Your task to perform on an android device: turn off priority inbox in the gmail app Image 0: 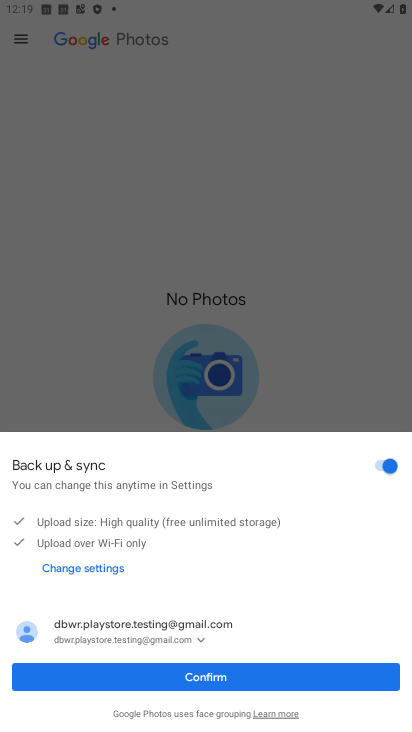
Step 0: press home button
Your task to perform on an android device: turn off priority inbox in the gmail app Image 1: 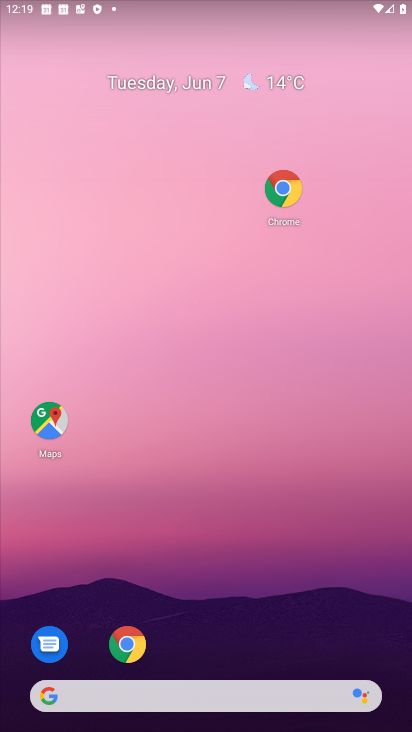
Step 1: drag from (294, 514) to (268, 76)
Your task to perform on an android device: turn off priority inbox in the gmail app Image 2: 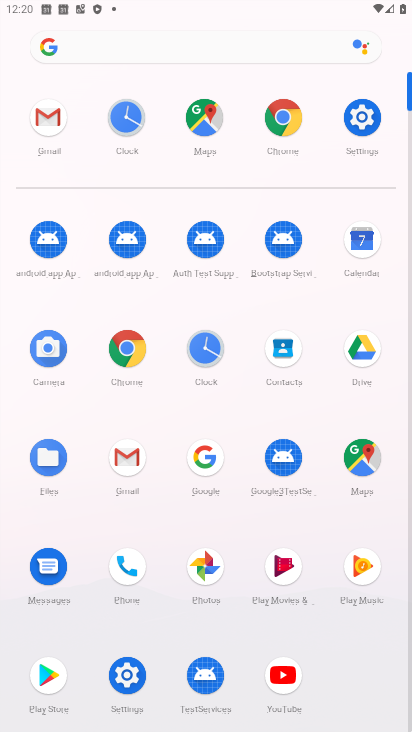
Step 2: click (63, 121)
Your task to perform on an android device: turn off priority inbox in the gmail app Image 3: 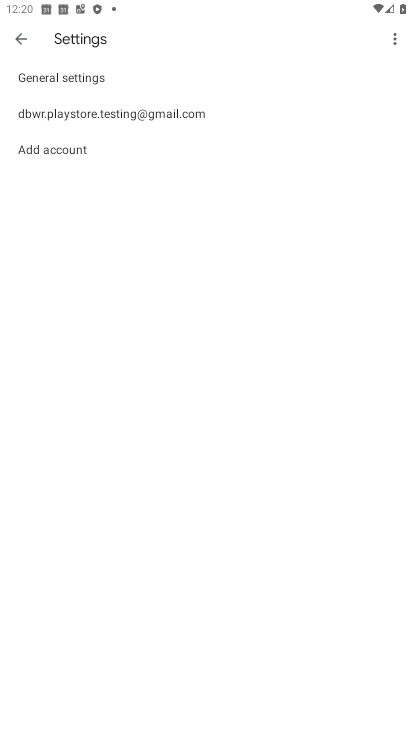
Step 3: click (12, 34)
Your task to perform on an android device: turn off priority inbox in the gmail app Image 4: 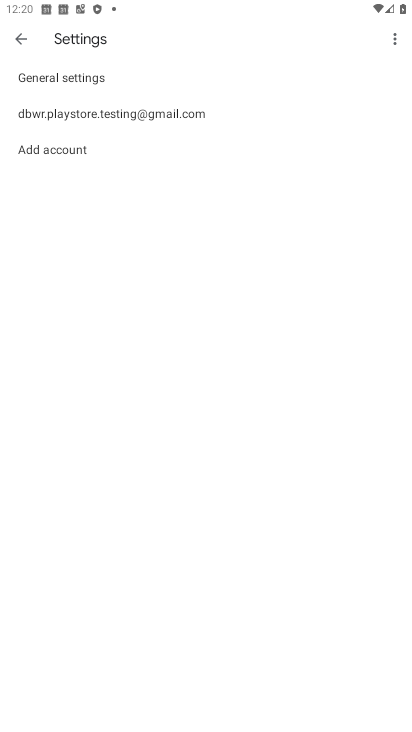
Step 4: click (14, 36)
Your task to perform on an android device: turn off priority inbox in the gmail app Image 5: 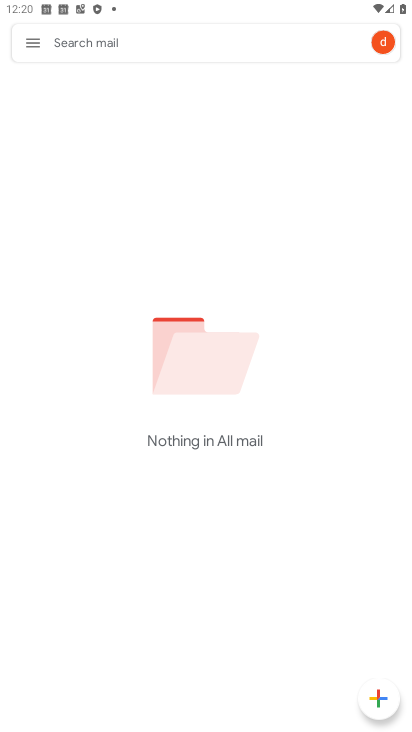
Step 5: click (21, 39)
Your task to perform on an android device: turn off priority inbox in the gmail app Image 6: 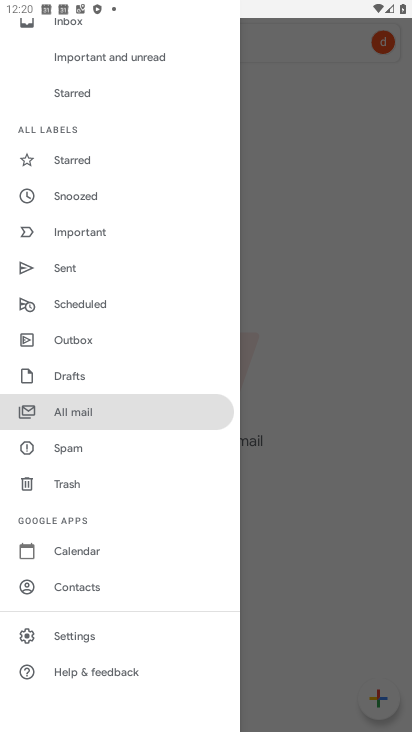
Step 6: click (90, 637)
Your task to perform on an android device: turn off priority inbox in the gmail app Image 7: 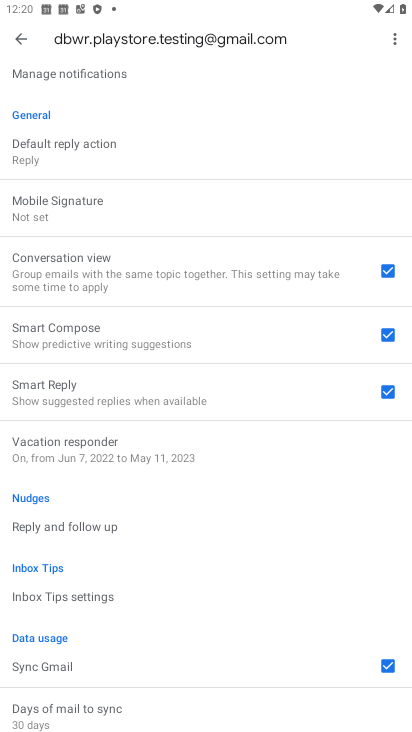
Step 7: drag from (125, 197) to (200, 686)
Your task to perform on an android device: turn off priority inbox in the gmail app Image 8: 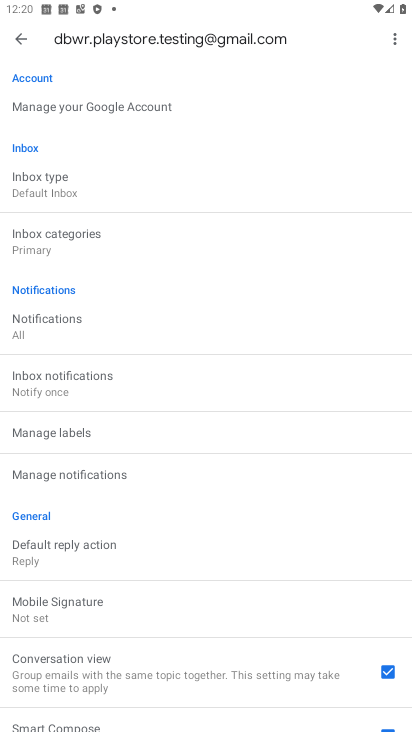
Step 8: drag from (133, 187) to (192, 524)
Your task to perform on an android device: turn off priority inbox in the gmail app Image 9: 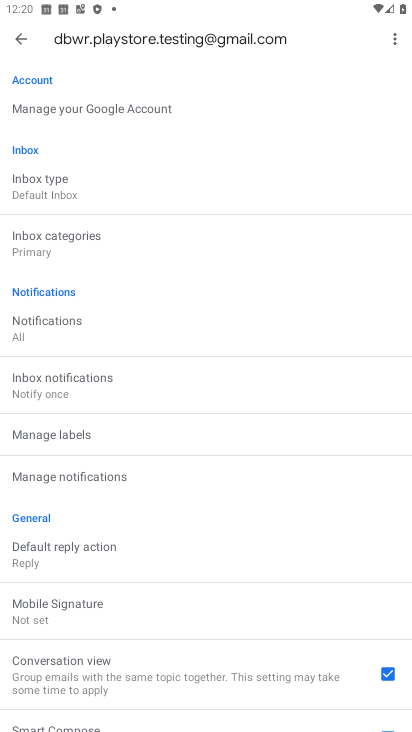
Step 9: click (82, 190)
Your task to perform on an android device: turn off priority inbox in the gmail app Image 10: 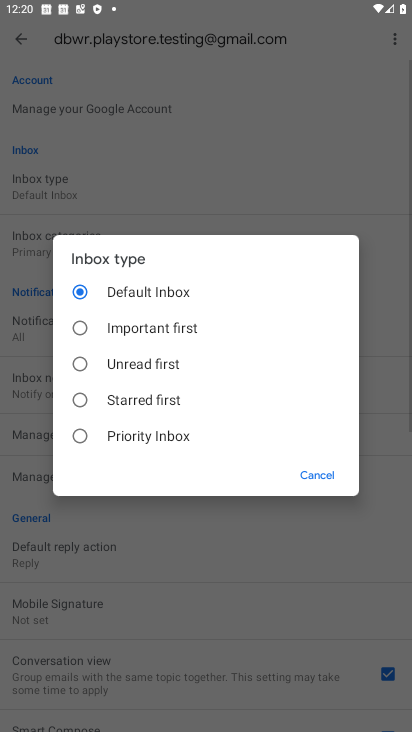
Step 10: task complete